Your task to perform on an android device: Search for seafood restaurants on Google Maps Image 0: 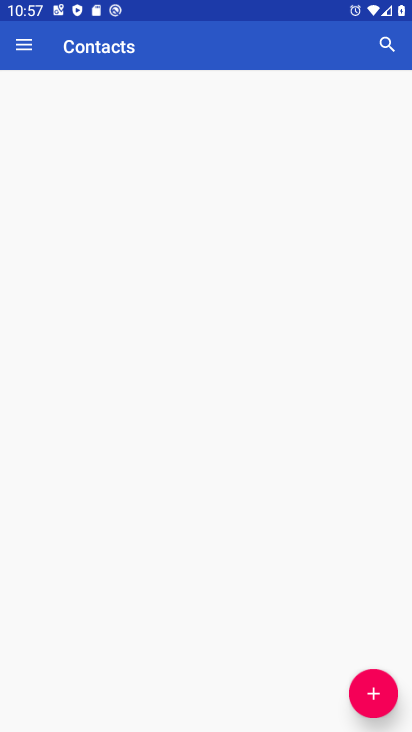
Step 0: drag from (319, 524) to (342, 463)
Your task to perform on an android device: Search for seafood restaurants on Google Maps Image 1: 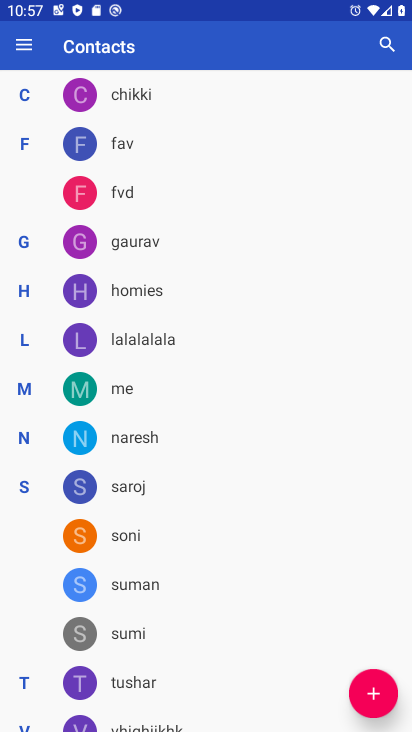
Step 1: press home button
Your task to perform on an android device: Search for seafood restaurants on Google Maps Image 2: 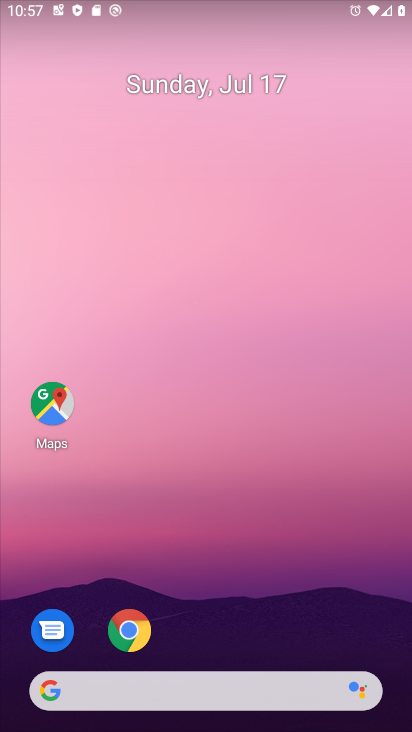
Step 2: drag from (340, 614) to (377, 91)
Your task to perform on an android device: Search for seafood restaurants on Google Maps Image 3: 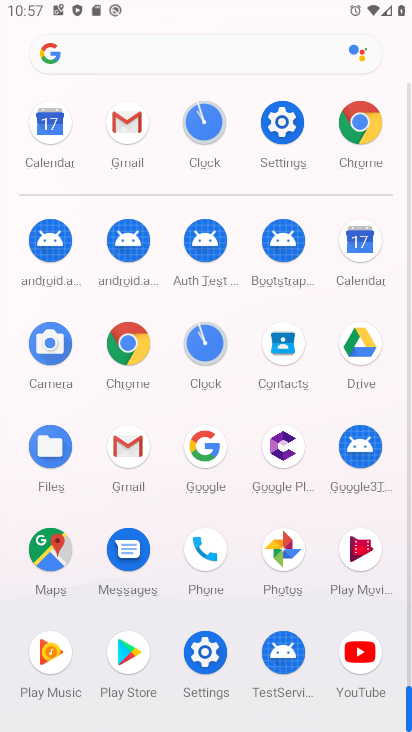
Step 3: click (52, 557)
Your task to perform on an android device: Search for seafood restaurants on Google Maps Image 4: 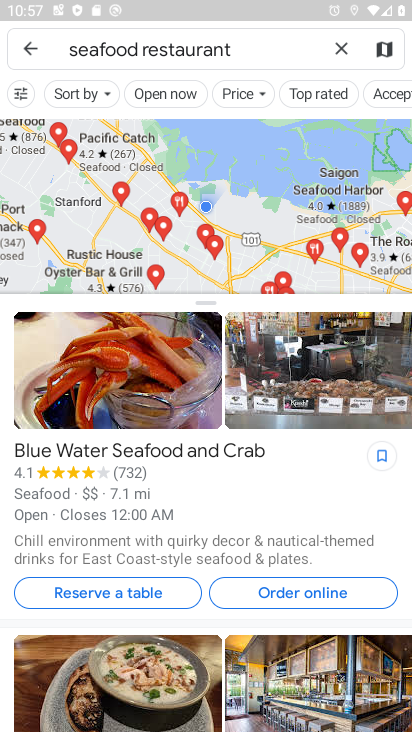
Step 4: press back button
Your task to perform on an android device: Search for seafood restaurants on Google Maps Image 5: 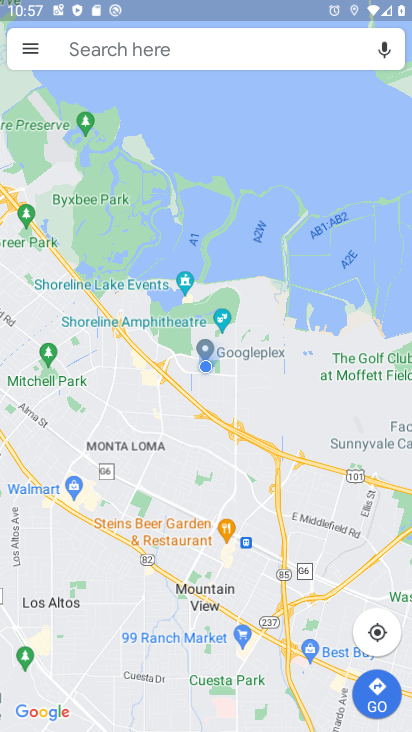
Step 5: click (262, 49)
Your task to perform on an android device: Search for seafood restaurants on Google Maps Image 6: 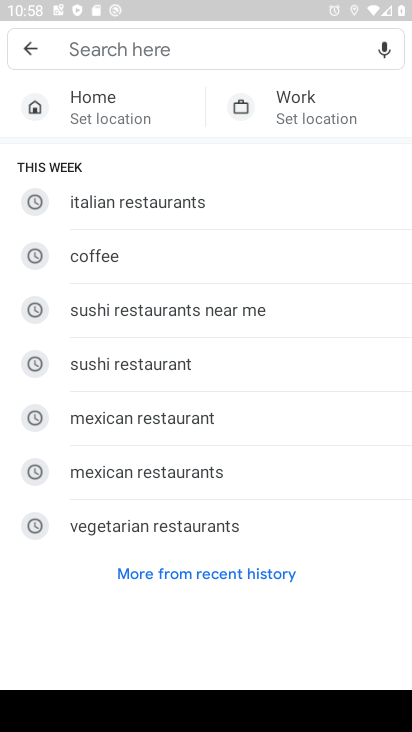
Step 6: type "seafood restaurants"
Your task to perform on an android device: Search for seafood restaurants on Google Maps Image 7: 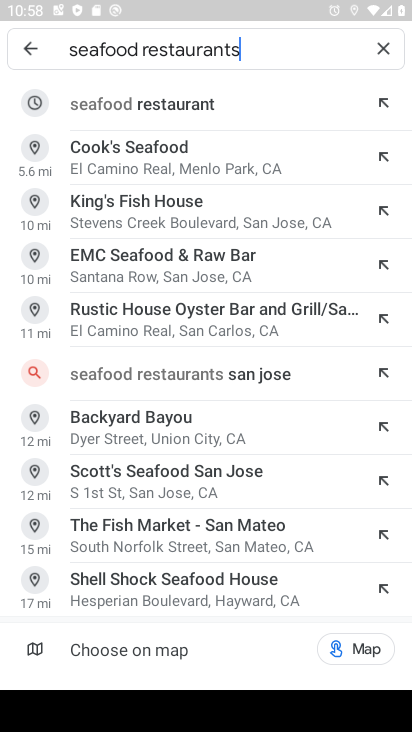
Step 7: click (205, 101)
Your task to perform on an android device: Search for seafood restaurants on Google Maps Image 8: 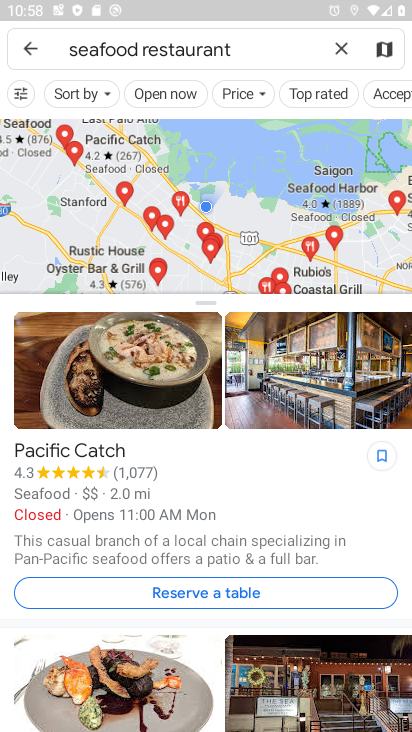
Step 8: task complete